Your task to perform on an android device: turn on showing notifications on the lock screen Image 0: 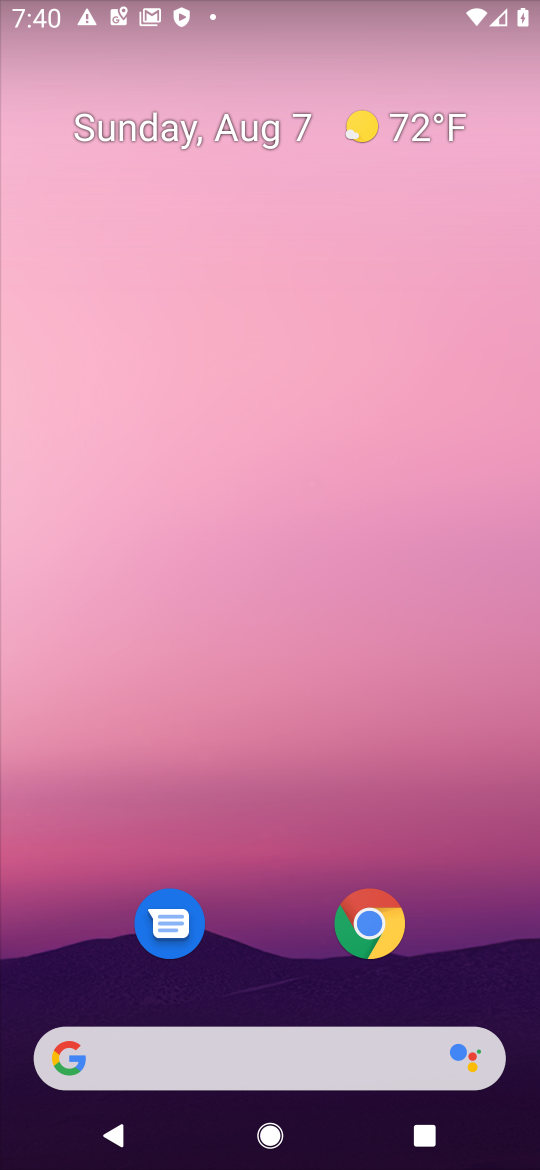
Step 0: drag from (494, 1018) to (274, 54)
Your task to perform on an android device: turn on showing notifications on the lock screen Image 1: 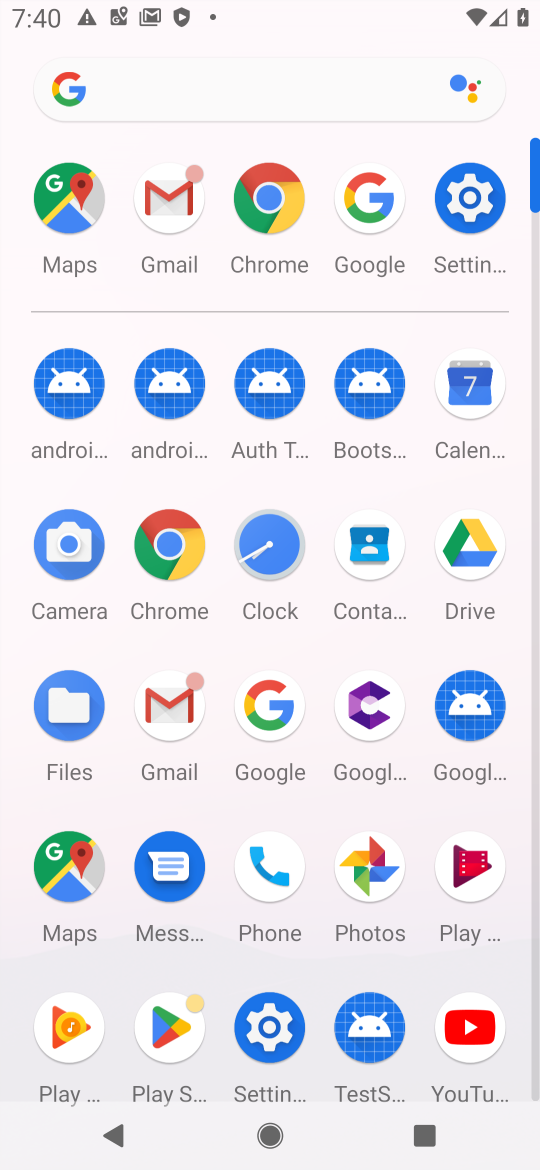
Step 1: click (492, 186)
Your task to perform on an android device: turn on showing notifications on the lock screen Image 2: 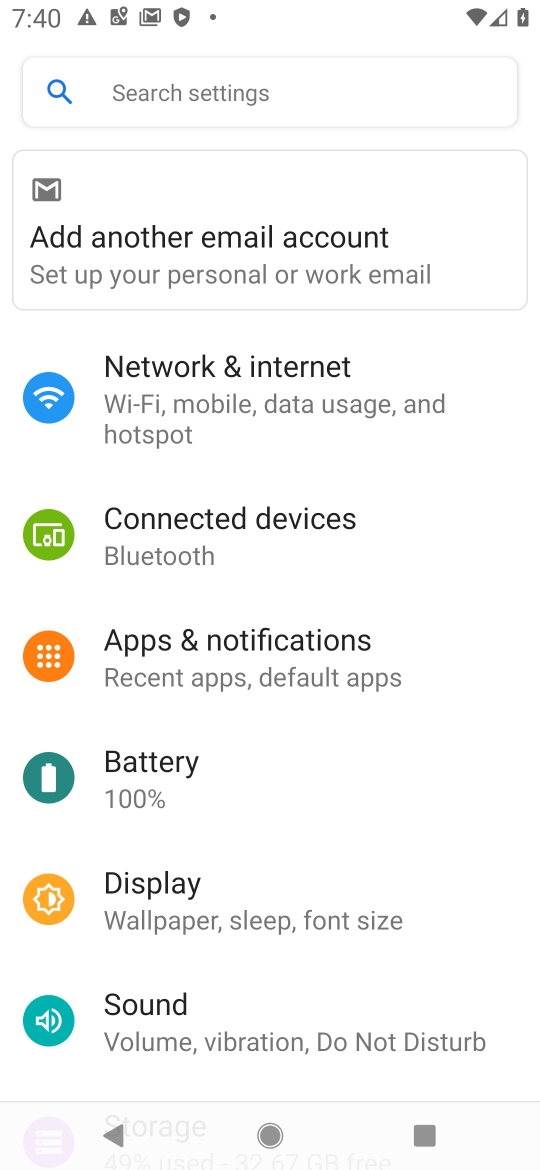
Step 2: click (256, 648)
Your task to perform on an android device: turn on showing notifications on the lock screen Image 3: 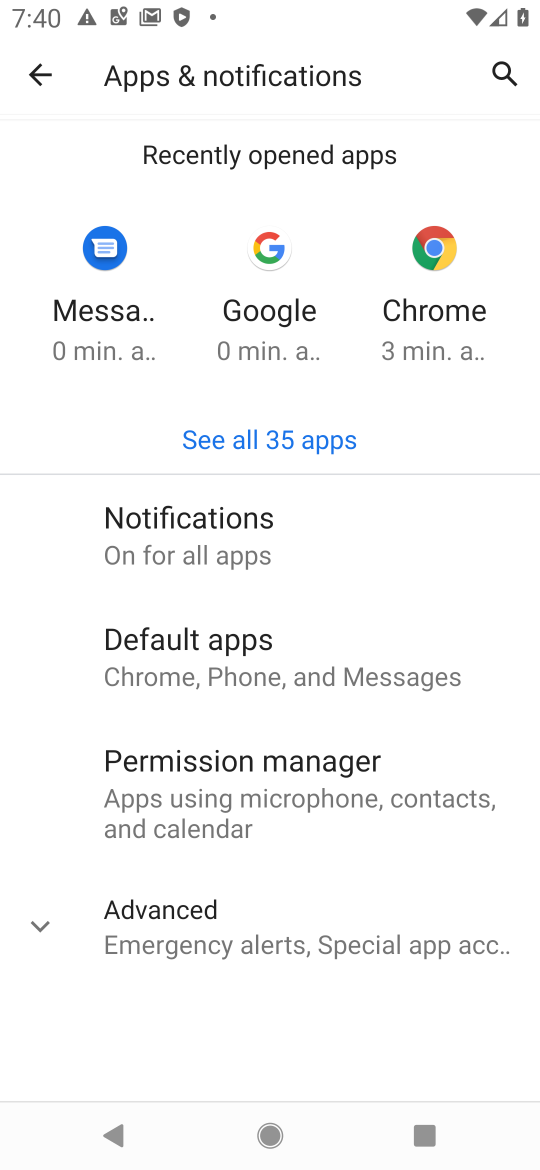
Step 3: click (216, 553)
Your task to perform on an android device: turn on showing notifications on the lock screen Image 4: 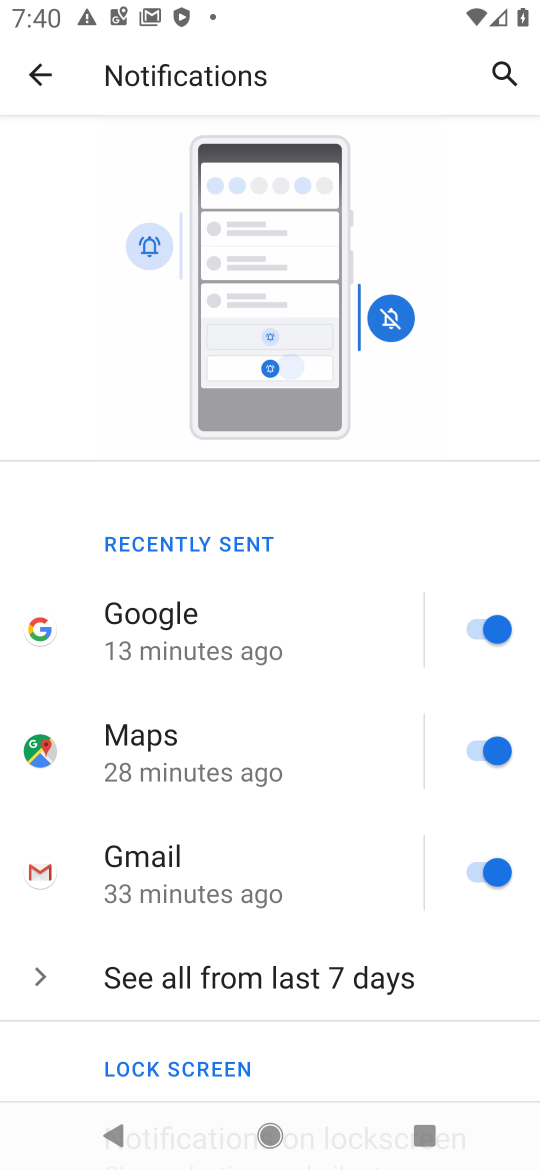
Step 4: drag from (248, 1058) to (241, 36)
Your task to perform on an android device: turn on showing notifications on the lock screen Image 5: 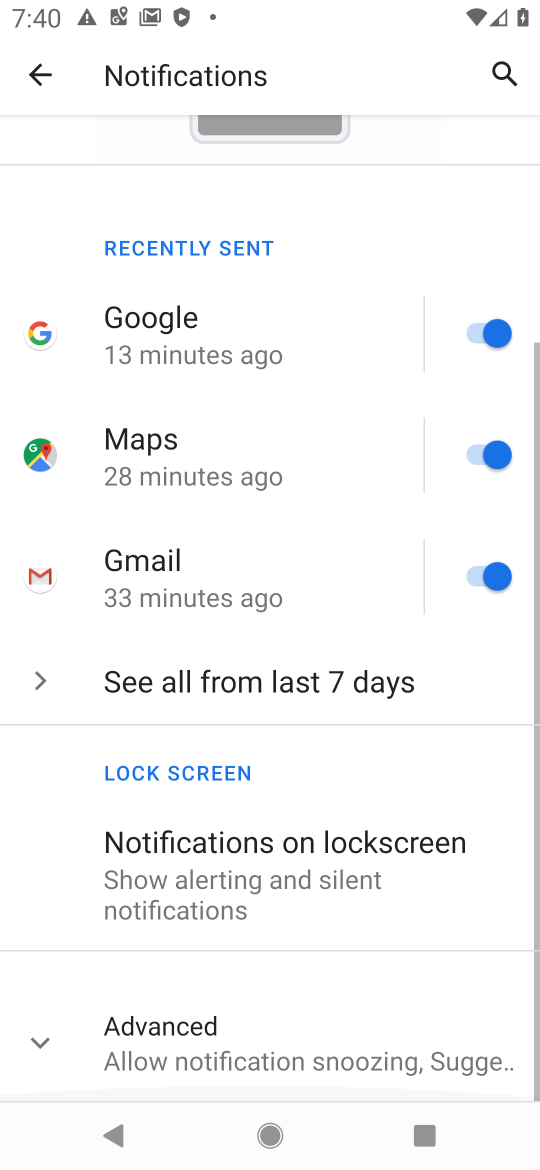
Step 5: click (259, 888)
Your task to perform on an android device: turn on showing notifications on the lock screen Image 6: 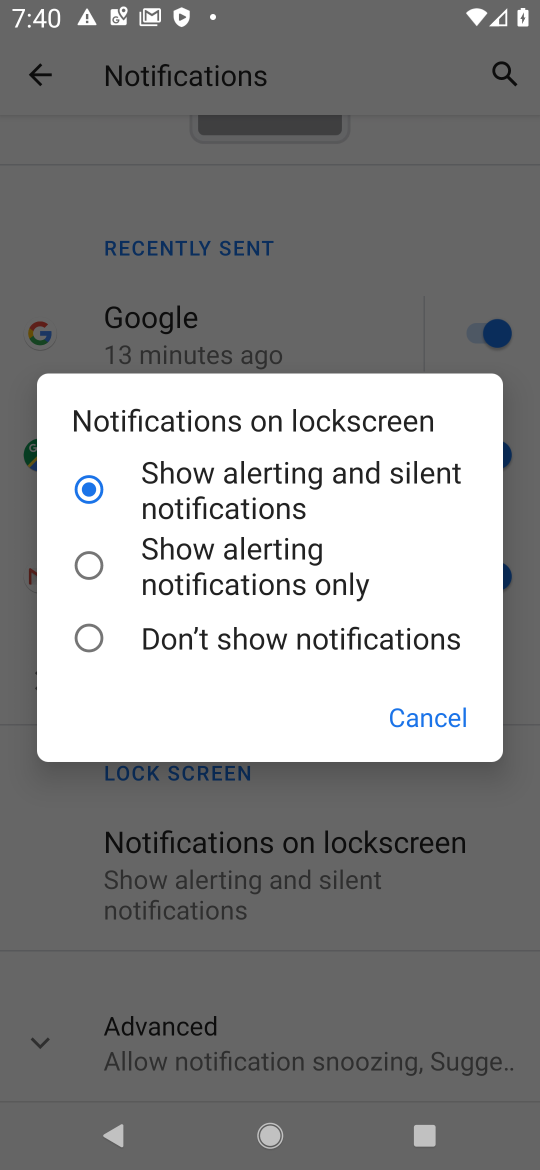
Step 6: click (286, 502)
Your task to perform on an android device: turn on showing notifications on the lock screen Image 7: 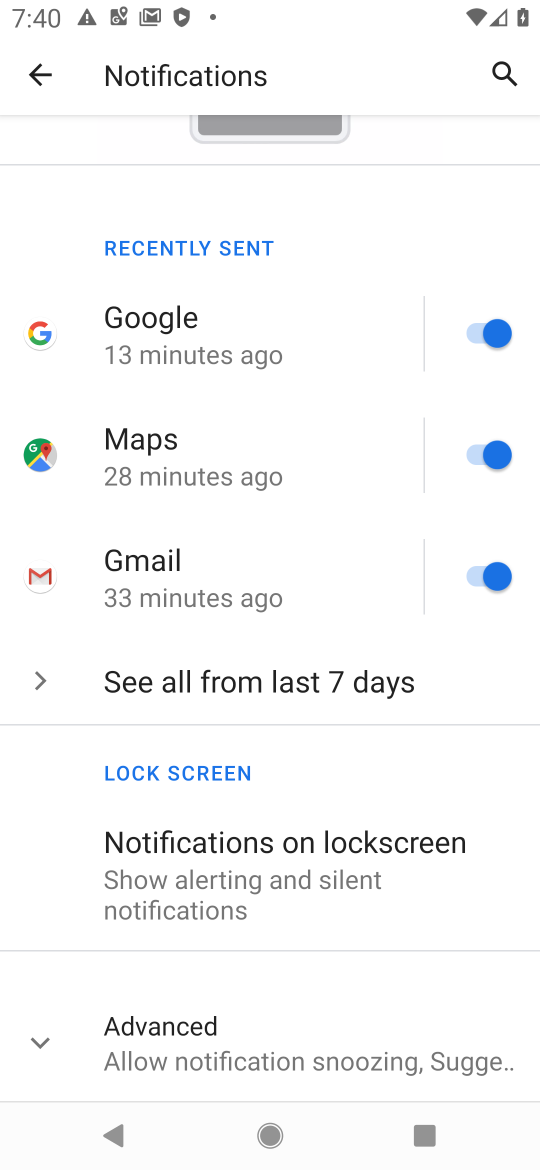
Step 7: task complete